Your task to perform on an android device: Open the calendar app, open the side menu, and click the "Day" option Image 0: 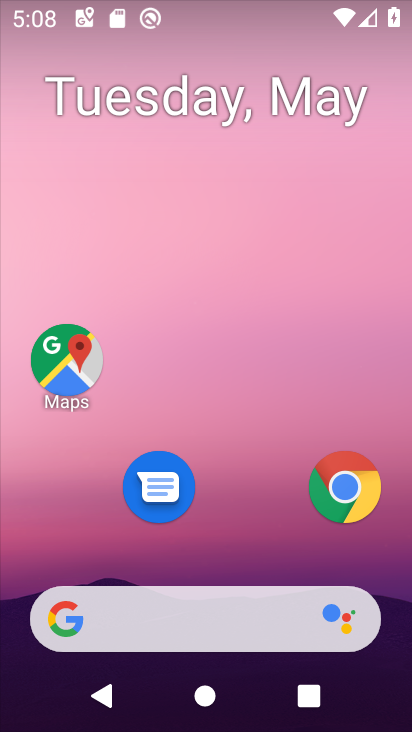
Step 0: drag from (272, 548) to (283, 295)
Your task to perform on an android device: Open the calendar app, open the side menu, and click the "Day" option Image 1: 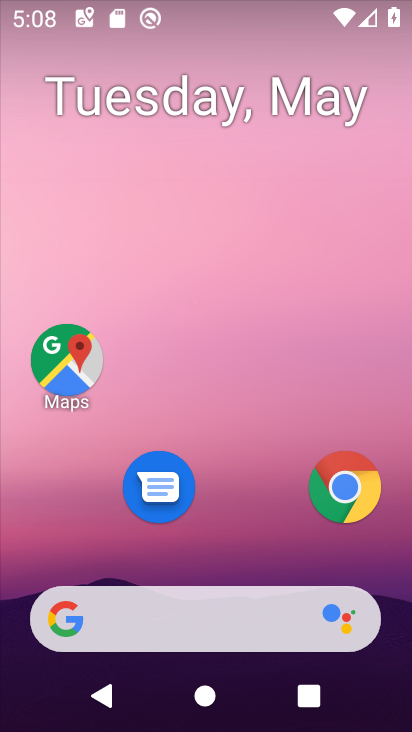
Step 1: drag from (232, 551) to (224, 1)
Your task to perform on an android device: Open the calendar app, open the side menu, and click the "Day" option Image 2: 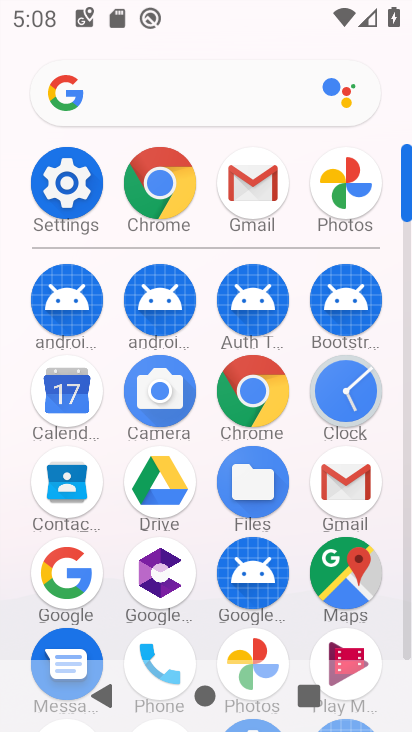
Step 2: click (69, 384)
Your task to perform on an android device: Open the calendar app, open the side menu, and click the "Day" option Image 3: 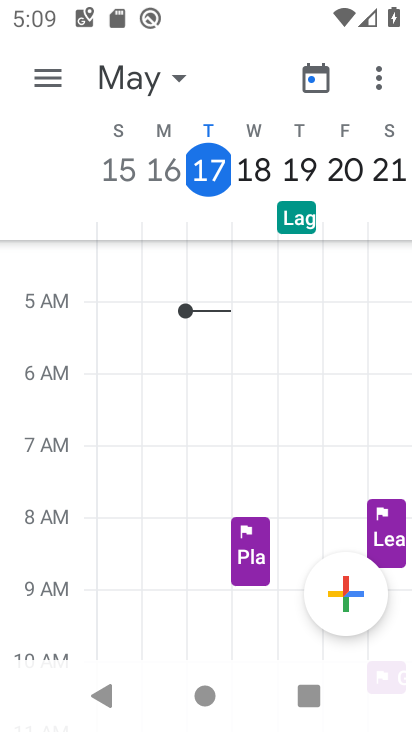
Step 3: click (47, 94)
Your task to perform on an android device: Open the calendar app, open the side menu, and click the "Day" option Image 4: 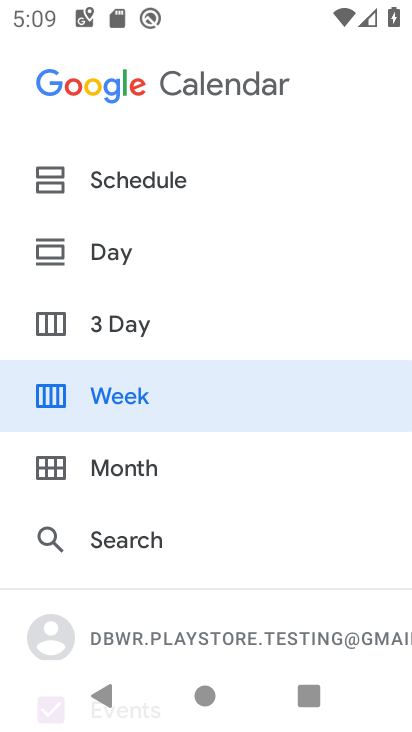
Step 4: click (78, 239)
Your task to perform on an android device: Open the calendar app, open the side menu, and click the "Day" option Image 5: 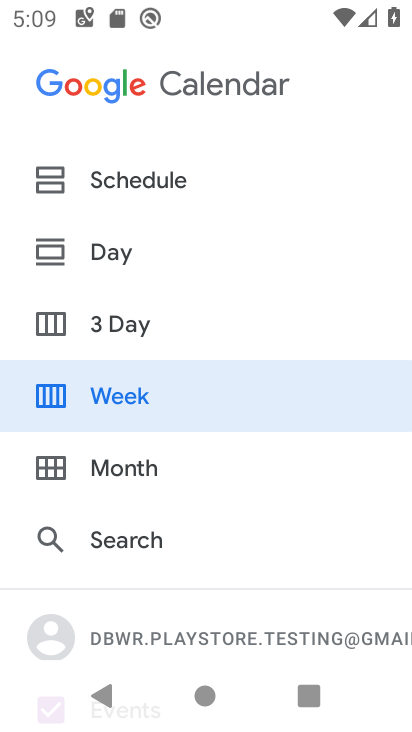
Step 5: task complete